Your task to perform on an android device: turn off translation in the chrome app Image 0: 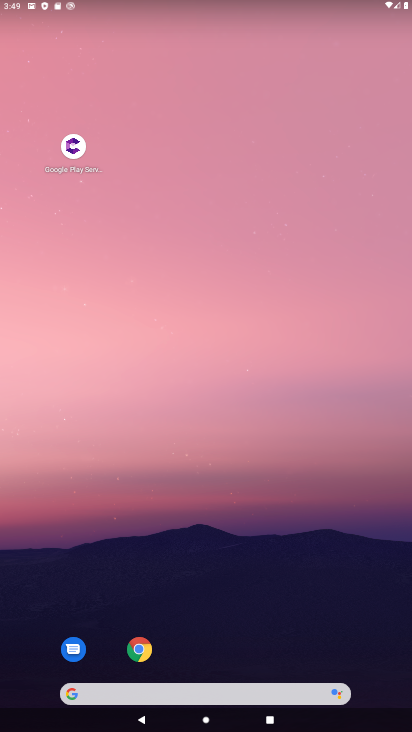
Step 0: click (121, 28)
Your task to perform on an android device: turn off translation in the chrome app Image 1: 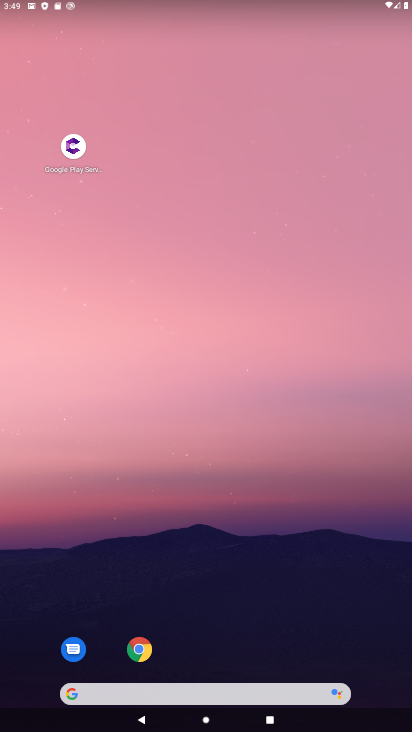
Step 1: click (88, 39)
Your task to perform on an android device: turn off translation in the chrome app Image 2: 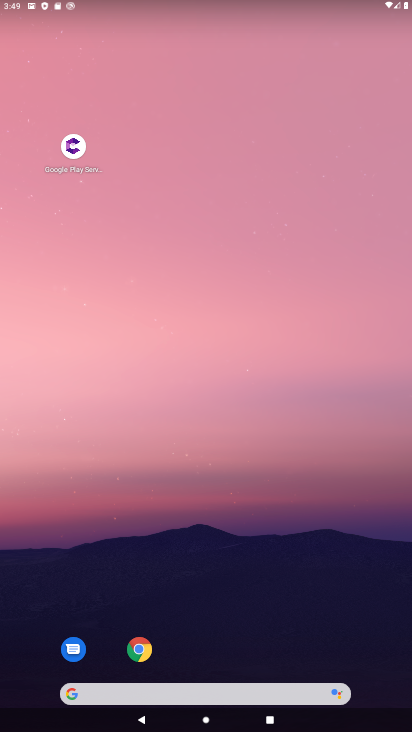
Step 2: drag from (171, 307) to (110, 2)
Your task to perform on an android device: turn off translation in the chrome app Image 3: 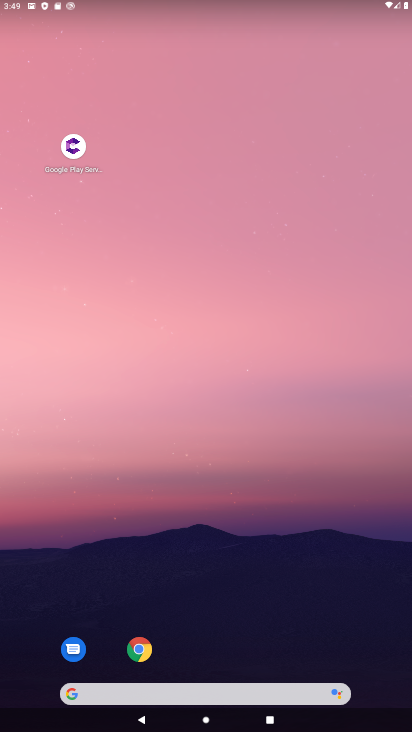
Step 3: drag from (130, 90) to (100, 51)
Your task to perform on an android device: turn off translation in the chrome app Image 4: 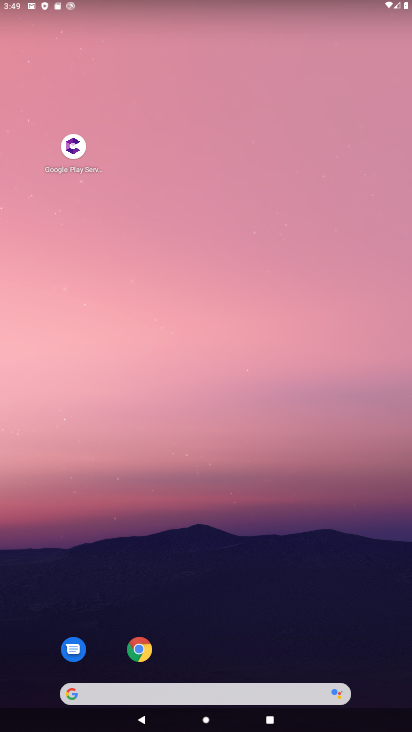
Step 4: drag from (148, 388) to (111, 53)
Your task to perform on an android device: turn off translation in the chrome app Image 5: 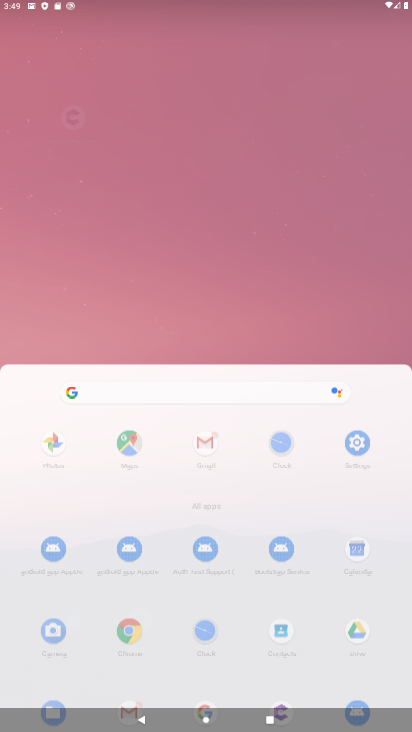
Step 5: drag from (316, 500) to (245, 100)
Your task to perform on an android device: turn off translation in the chrome app Image 6: 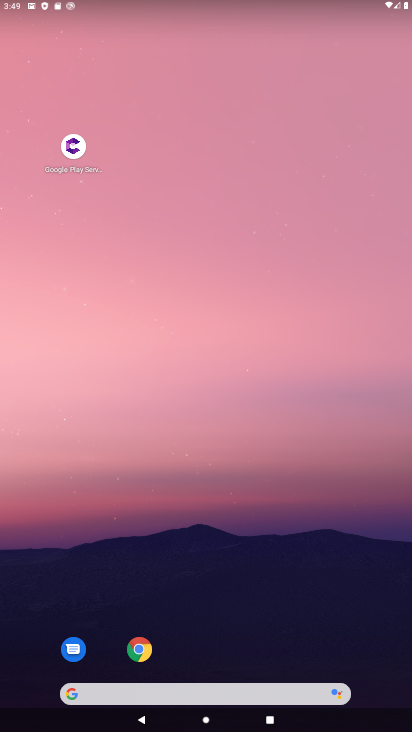
Step 6: drag from (186, 461) to (132, 29)
Your task to perform on an android device: turn off translation in the chrome app Image 7: 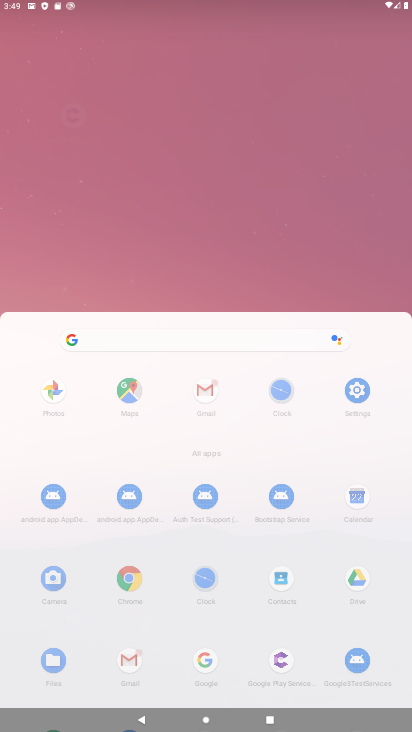
Step 7: drag from (163, 404) to (191, 3)
Your task to perform on an android device: turn off translation in the chrome app Image 8: 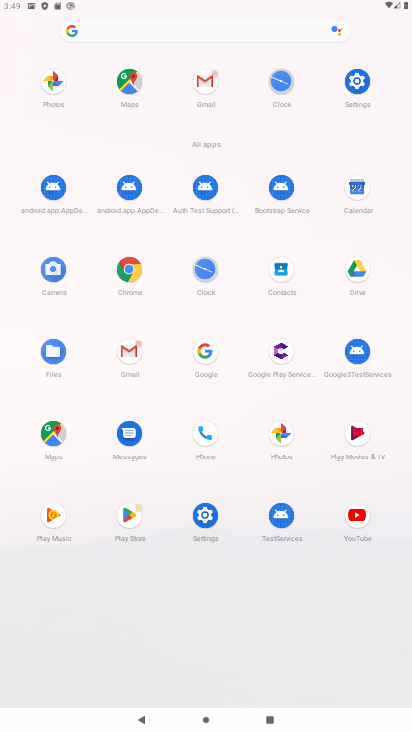
Step 8: drag from (174, 34) to (210, 65)
Your task to perform on an android device: turn off translation in the chrome app Image 9: 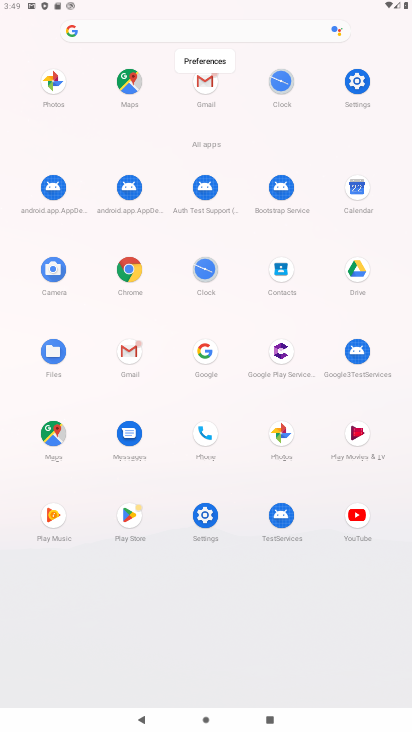
Step 9: click (122, 284)
Your task to perform on an android device: turn off translation in the chrome app Image 10: 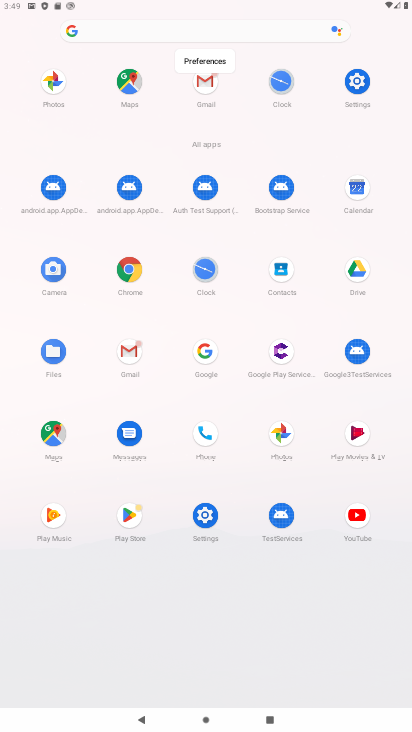
Step 10: click (122, 277)
Your task to perform on an android device: turn off translation in the chrome app Image 11: 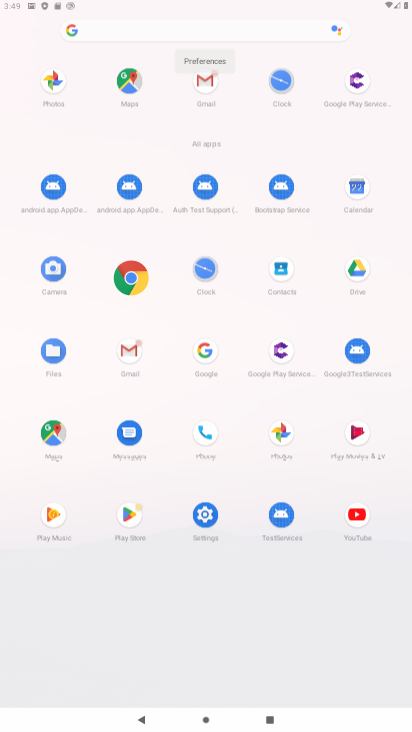
Step 11: click (119, 274)
Your task to perform on an android device: turn off translation in the chrome app Image 12: 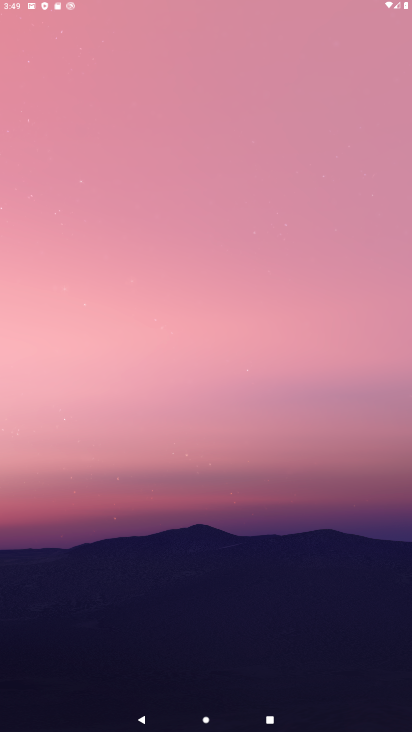
Step 12: click (119, 274)
Your task to perform on an android device: turn off translation in the chrome app Image 13: 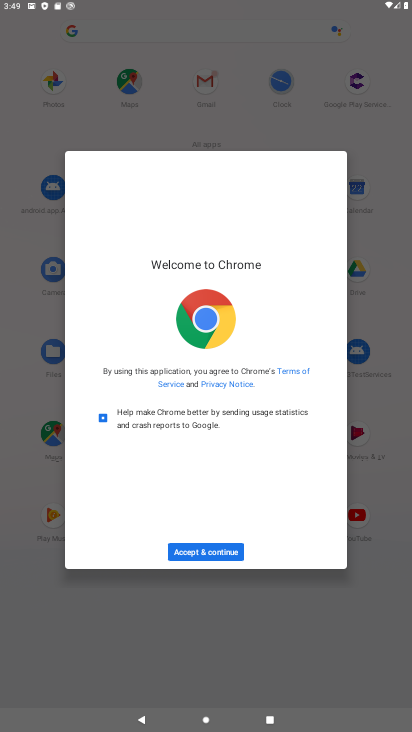
Step 13: drag from (225, 492) to (143, 114)
Your task to perform on an android device: turn off translation in the chrome app Image 14: 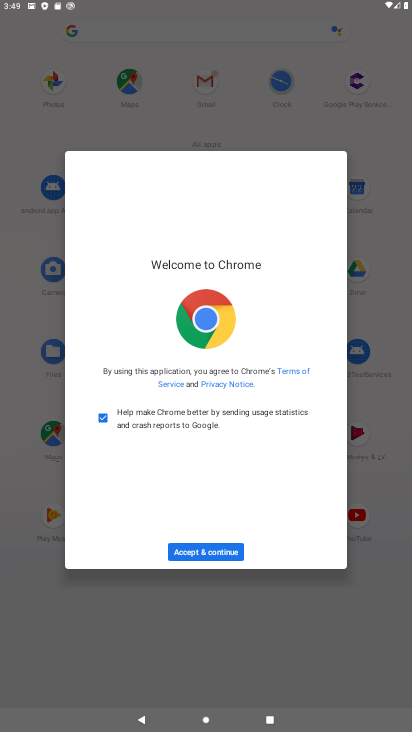
Step 14: click (197, 553)
Your task to perform on an android device: turn off translation in the chrome app Image 15: 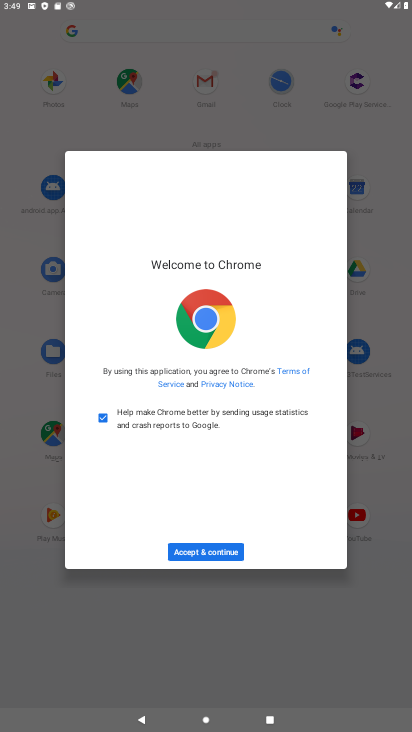
Step 15: click (196, 553)
Your task to perform on an android device: turn off translation in the chrome app Image 16: 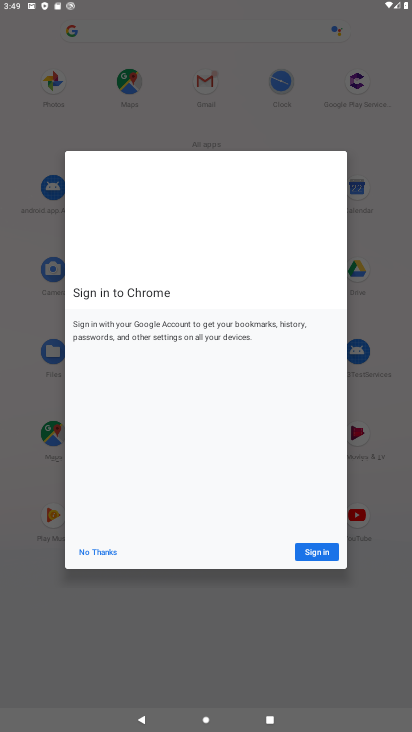
Step 16: click (196, 553)
Your task to perform on an android device: turn off translation in the chrome app Image 17: 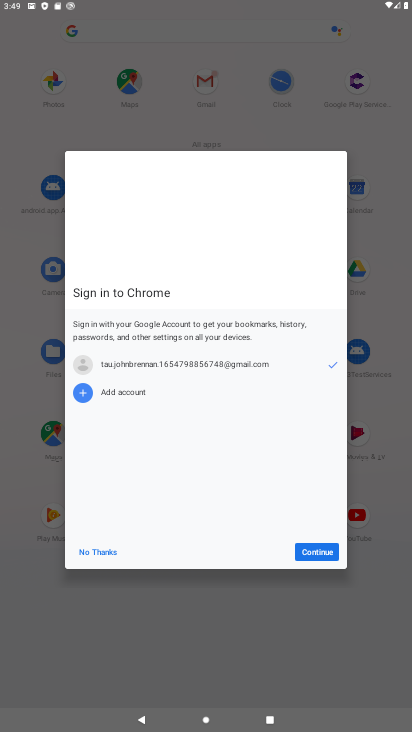
Step 17: click (197, 551)
Your task to perform on an android device: turn off translation in the chrome app Image 18: 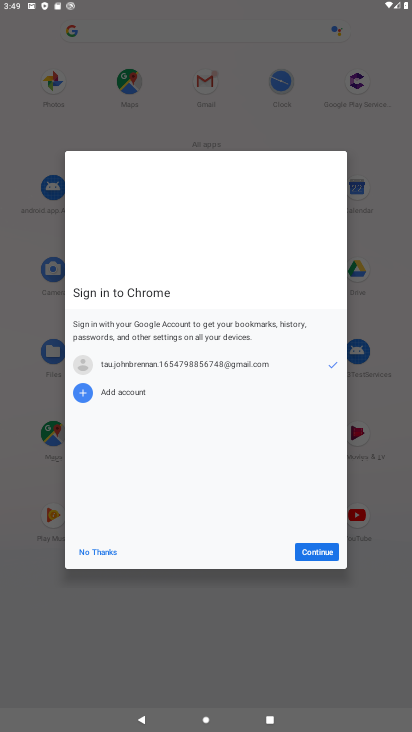
Step 18: click (100, 540)
Your task to perform on an android device: turn off translation in the chrome app Image 19: 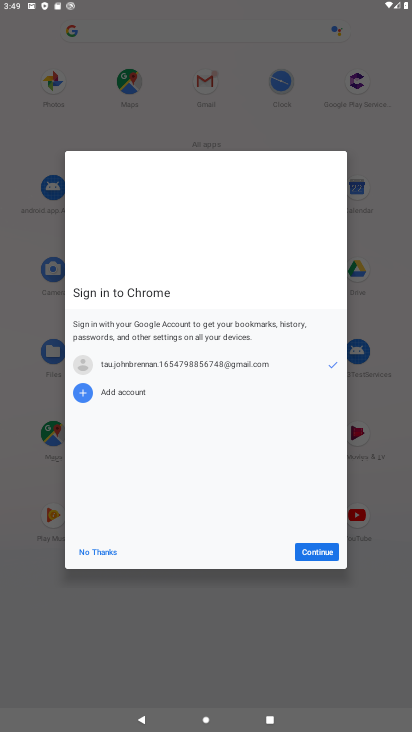
Step 19: click (102, 542)
Your task to perform on an android device: turn off translation in the chrome app Image 20: 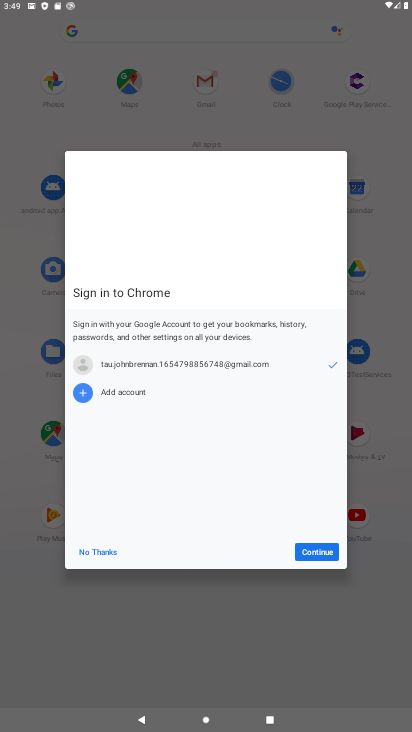
Step 20: click (103, 542)
Your task to perform on an android device: turn off translation in the chrome app Image 21: 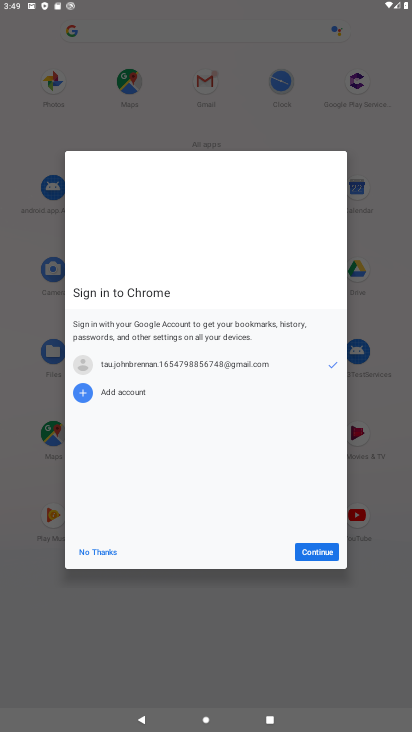
Step 21: click (82, 553)
Your task to perform on an android device: turn off translation in the chrome app Image 22: 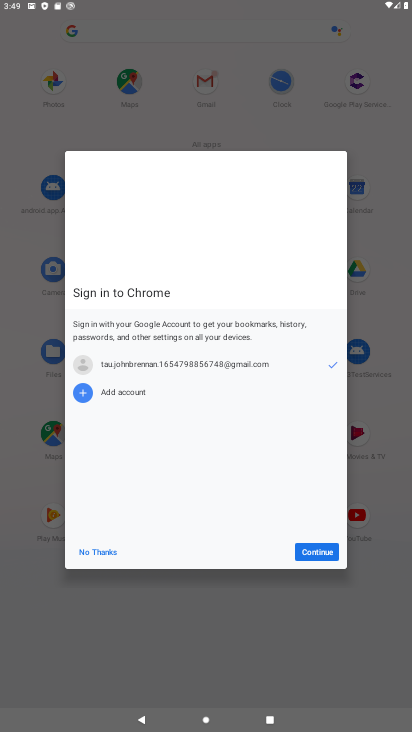
Step 22: click (97, 549)
Your task to perform on an android device: turn off translation in the chrome app Image 23: 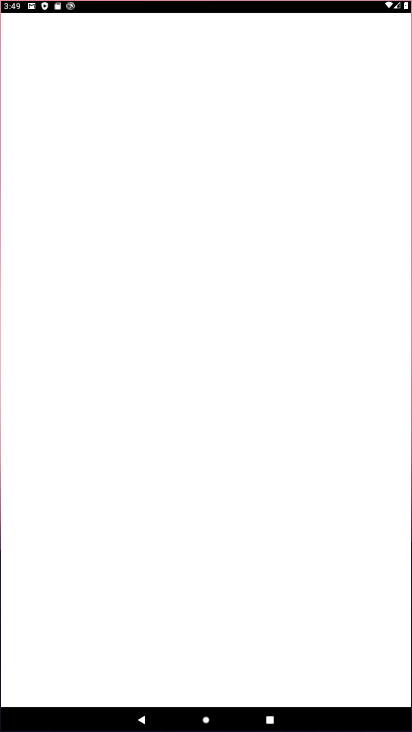
Step 23: click (103, 558)
Your task to perform on an android device: turn off translation in the chrome app Image 24: 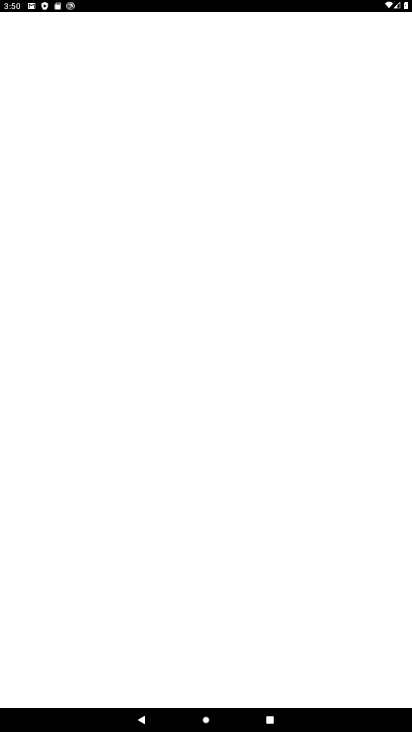
Step 24: click (101, 559)
Your task to perform on an android device: turn off translation in the chrome app Image 25: 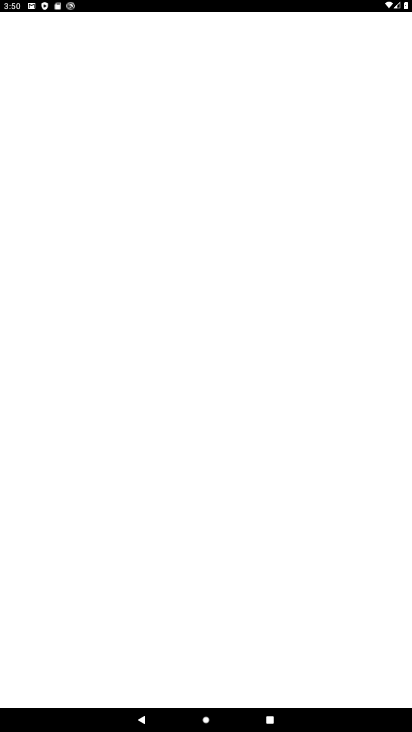
Step 25: click (105, 549)
Your task to perform on an android device: turn off translation in the chrome app Image 26: 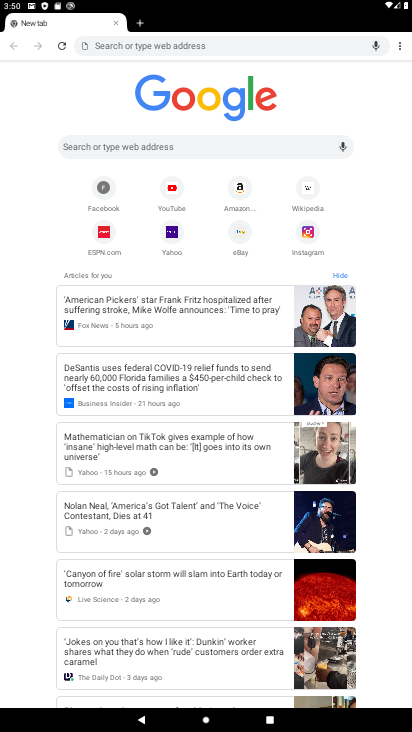
Step 26: drag from (400, 46) to (298, 207)
Your task to perform on an android device: turn off translation in the chrome app Image 27: 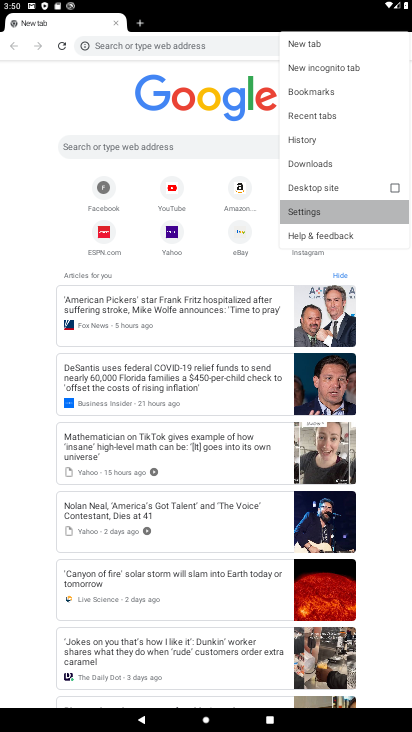
Step 27: click (299, 208)
Your task to perform on an android device: turn off translation in the chrome app Image 28: 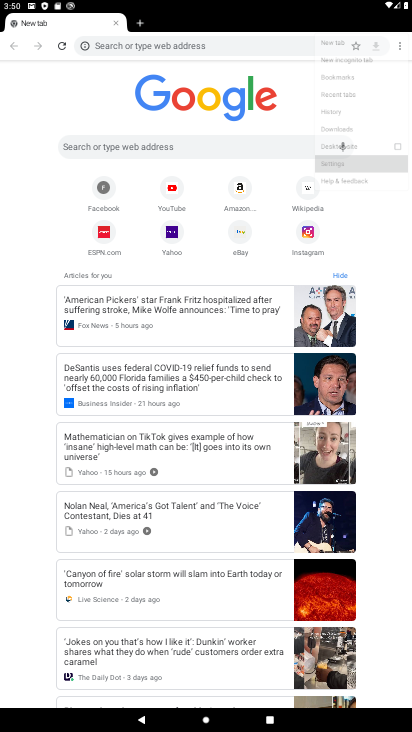
Step 28: click (299, 208)
Your task to perform on an android device: turn off translation in the chrome app Image 29: 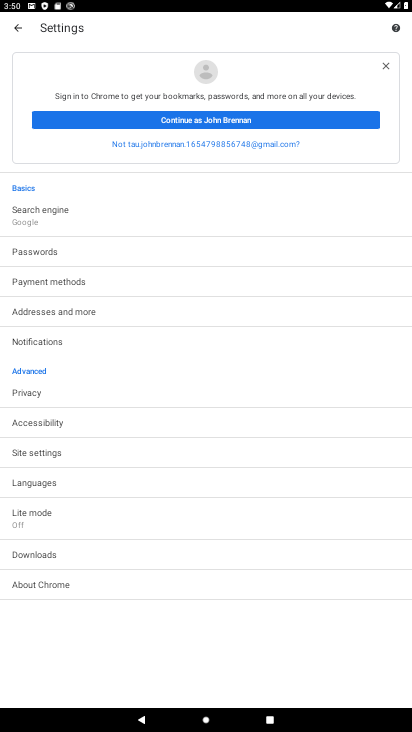
Step 29: click (51, 484)
Your task to perform on an android device: turn off translation in the chrome app Image 30: 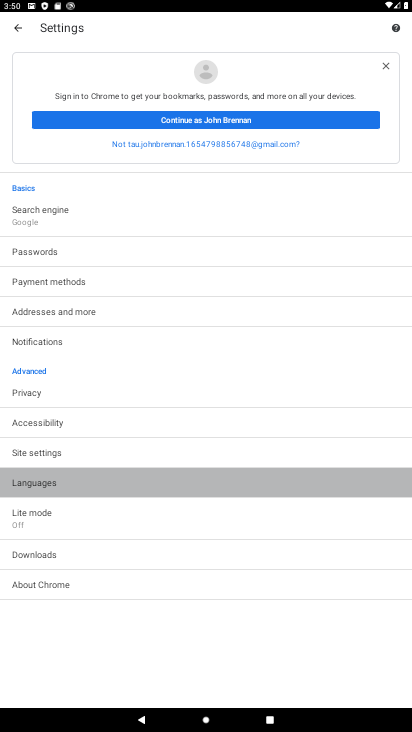
Step 30: click (54, 477)
Your task to perform on an android device: turn off translation in the chrome app Image 31: 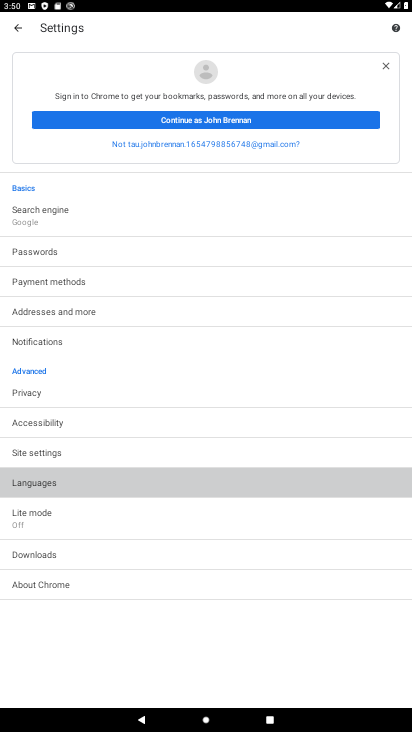
Step 31: click (54, 477)
Your task to perform on an android device: turn off translation in the chrome app Image 32: 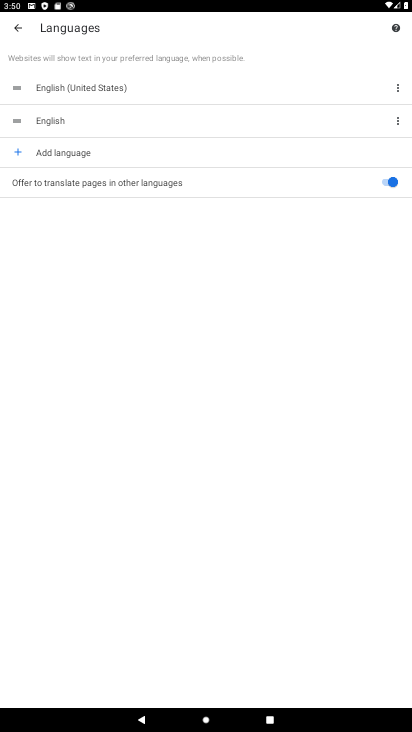
Step 32: click (388, 182)
Your task to perform on an android device: turn off translation in the chrome app Image 33: 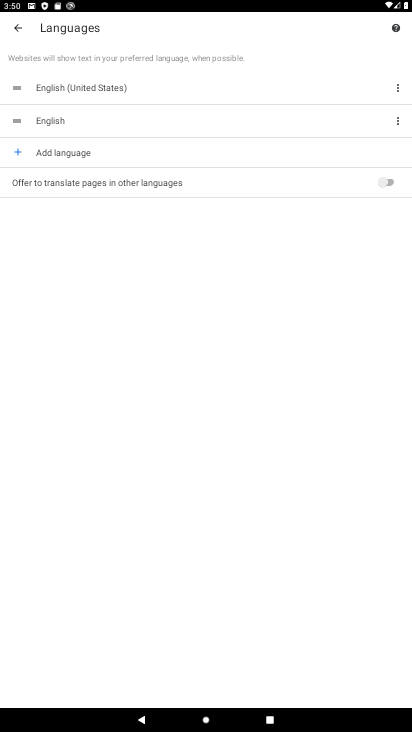
Step 33: task complete